Your task to perform on an android device: check out phone information Image 0: 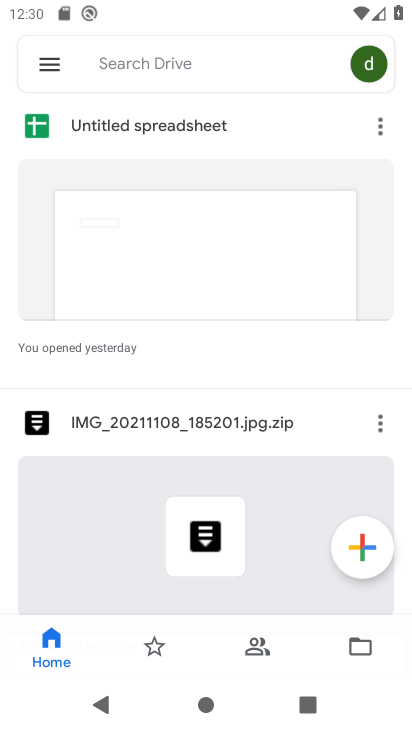
Step 0: press home button
Your task to perform on an android device: check out phone information Image 1: 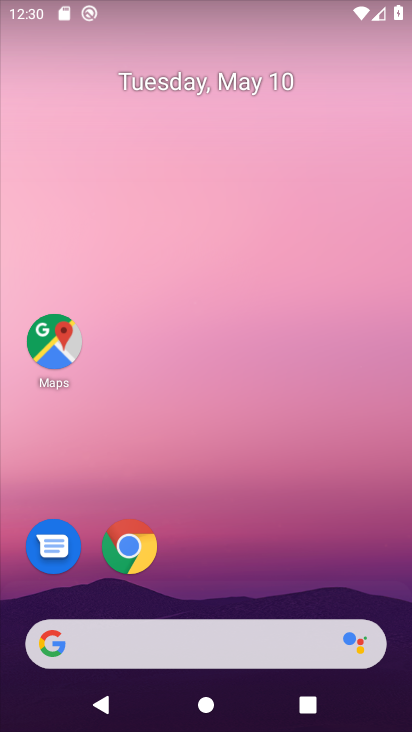
Step 1: drag from (292, 557) to (373, 71)
Your task to perform on an android device: check out phone information Image 2: 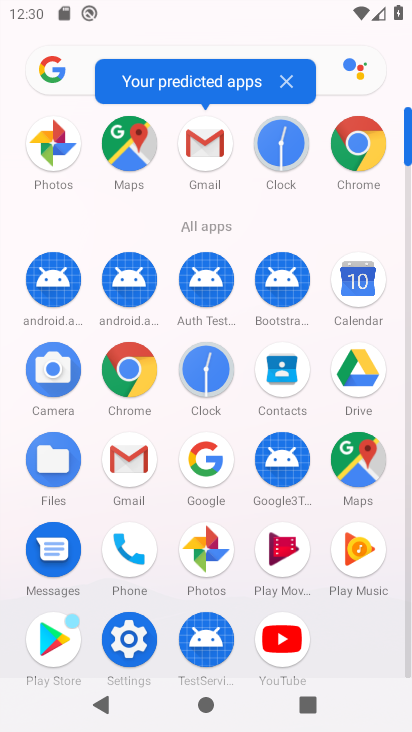
Step 2: click (126, 592)
Your task to perform on an android device: check out phone information Image 3: 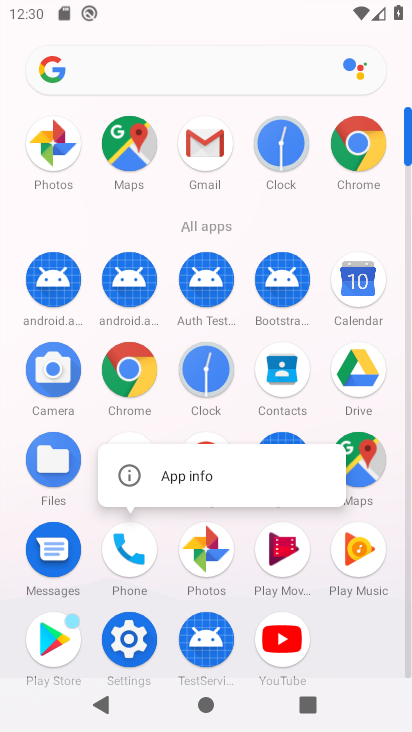
Step 3: click (191, 477)
Your task to perform on an android device: check out phone information Image 4: 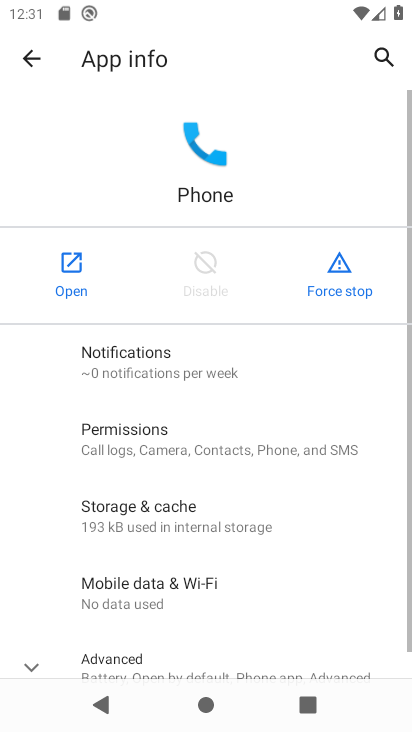
Step 4: task complete